Your task to perform on an android device: stop showing notifications on the lock screen Image 0: 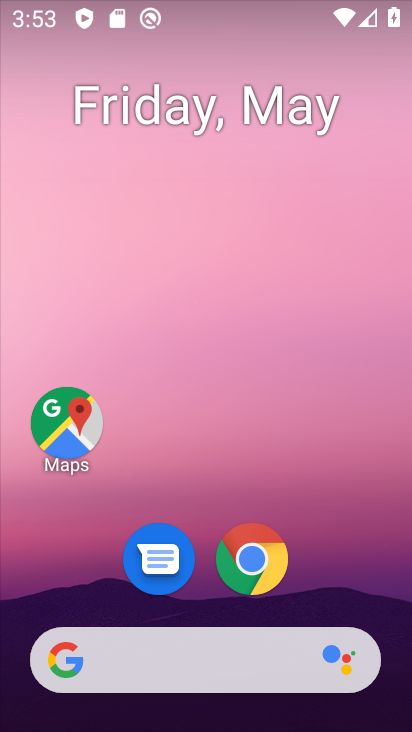
Step 0: drag from (323, 559) to (248, 112)
Your task to perform on an android device: stop showing notifications on the lock screen Image 1: 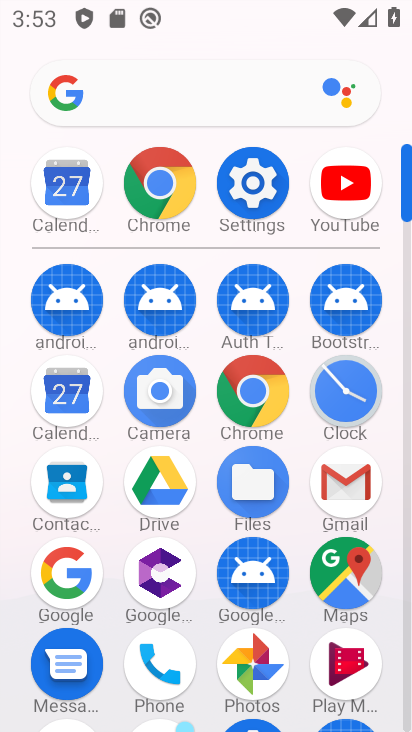
Step 1: click (246, 185)
Your task to perform on an android device: stop showing notifications on the lock screen Image 2: 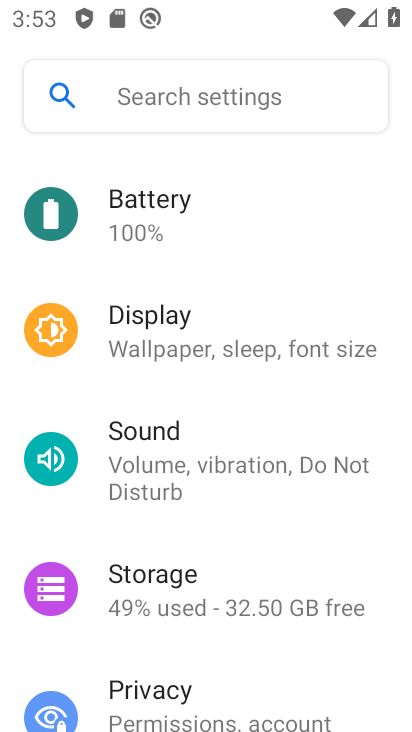
Step 2: drag from (267, 611) to (270, 248)
Your task to perform on an android device: stop showing notifications on the lock screen Image 3: 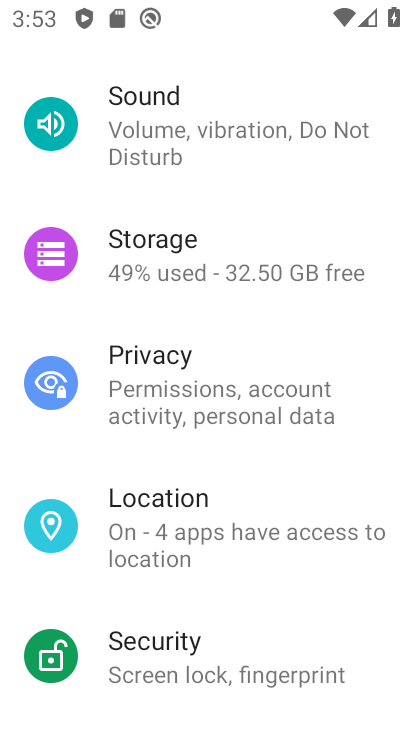
Step 3: drag from (293, 631) to (287, 301)
Your task to perform on an android device: stop showing notifications on the lock screen Image 4: 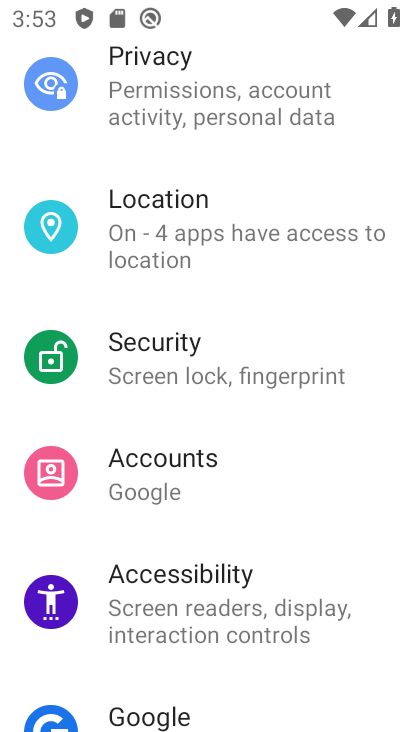
Step 4: drag from (266, 528) to (259, 238)
Your task to perform on an android device: stop showing notifications on the lock screen Image 5: 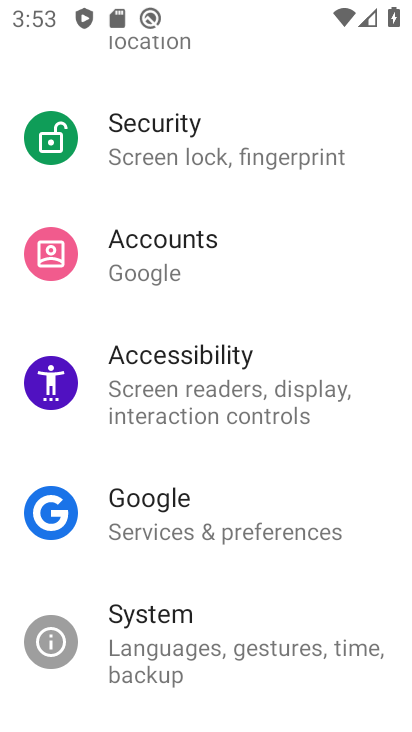
Step 5: drag from (256, 409) to (260, 248)
Your task to perform on an android device: stop showing notifications on the lock screen Image 6: 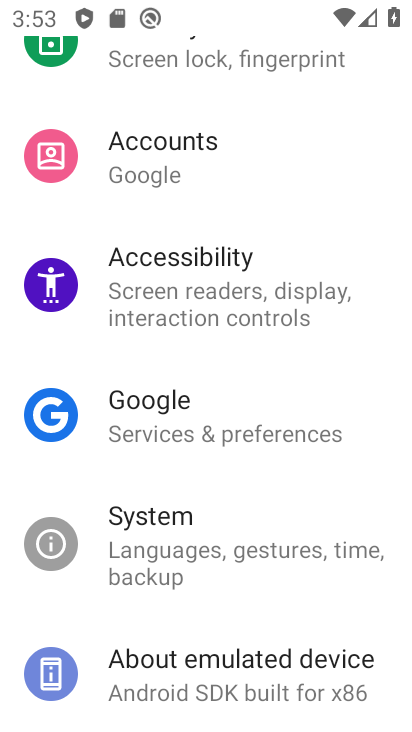
Step 6: drag from (286, 564) to (306, 257)
Your task to perform on an android device: stop showing notifications on the lock screen Image 7: 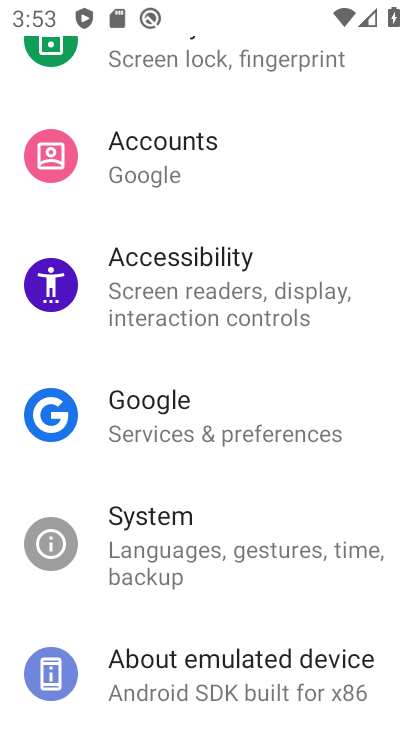
Step 7: drag from (191, 465) to (218, 228)
Your task to perform on an android device: stop showing notifications on the lock screen Image 8: 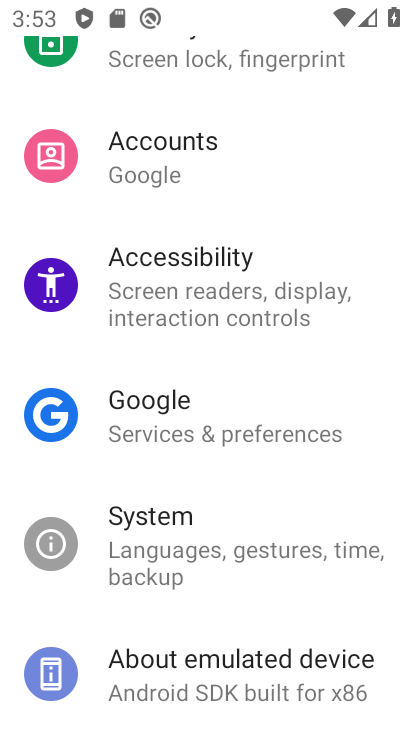
Step 8: drag from (226, 295) to (274, 638)
Your task to perform on an android device: stop showing notifications on the lock screen Image 9: 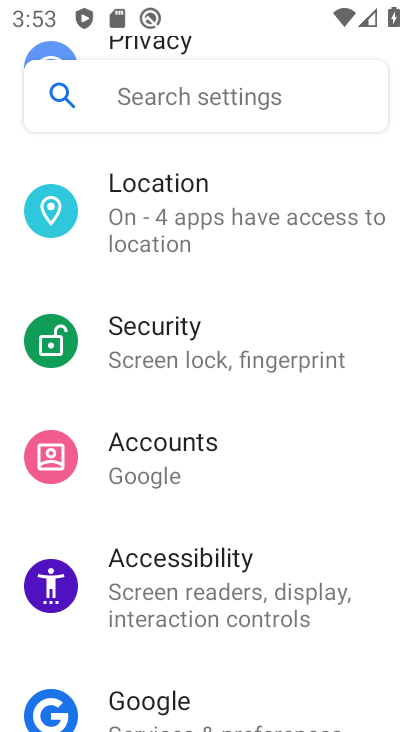
Step 9: drag from (238, 283) to (277, 633)
Your task to perform on an android device: stop showing notifications on the lock screen Image 10: 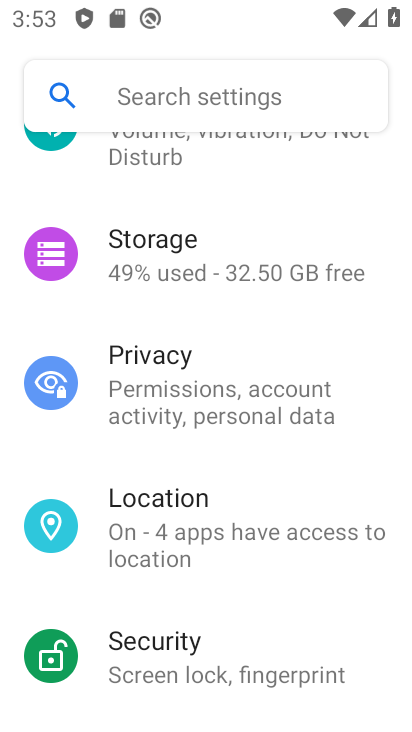
Step 10: drag from (284, 313) to (324, 597)
Your task to perform on an android device: stop showing notifications on the lock screen Image 11: 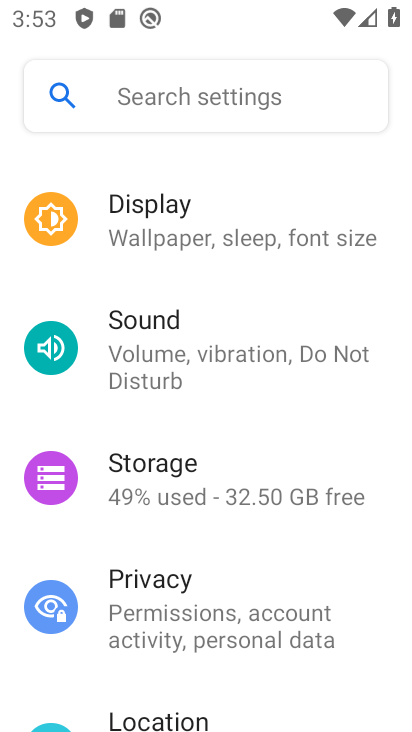
Step 11: drag from (269, 282) to (298, 578)
Your task to perform on an android device: stop showing notifications on the lock screen Image 12: 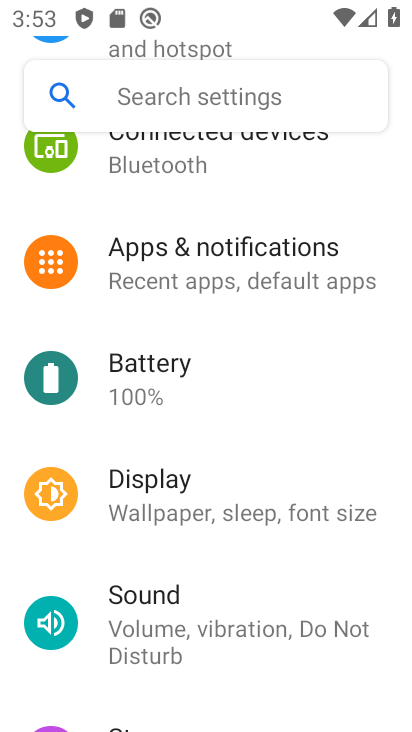
Step 12: click (262, 246)
Your task to perform on an android device: stop showing notifications on the lock screen Image 13: 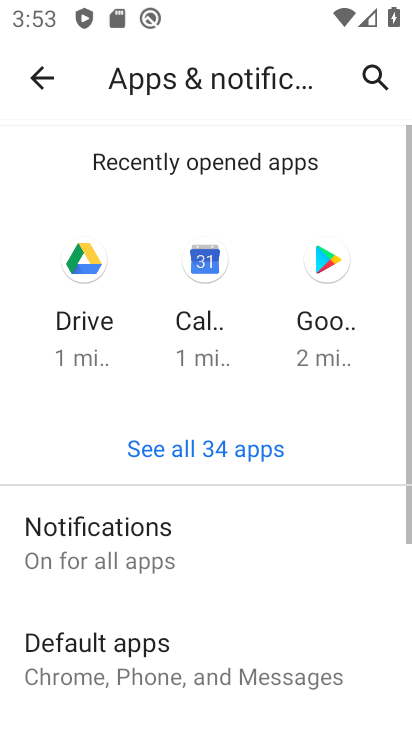
Step 13: drag from (214, 600) to (215, 328)
Your task to perform on an android device: stop showing notifications on the lock screen Image 14: 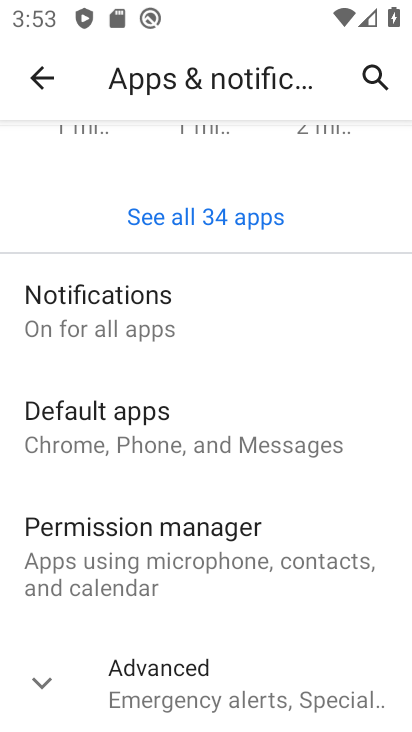
Step 14: click (140, 287)
Your task to perform on an android device: stop showing notifications on the lock screen Image 15: 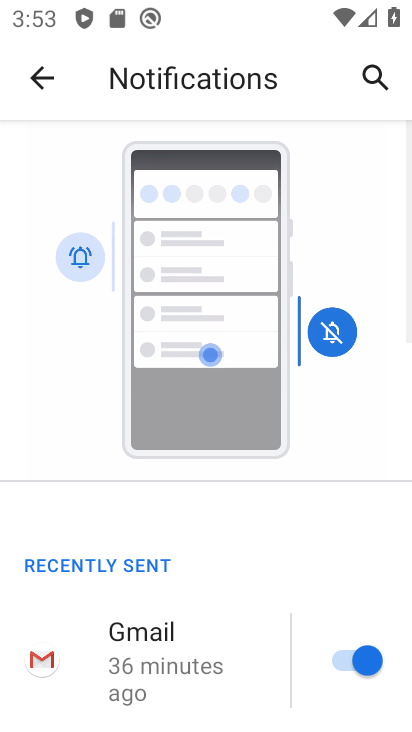
Step 15: drag from (152, 638) to (196, 149)
Your task to perform on an android device: stop showing notifications on the lock screen Image 16: 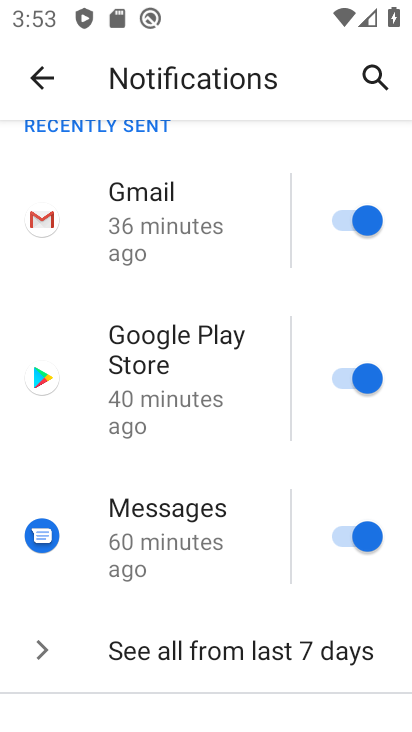
Step 16: drag from (160, 562) to (172, 136)
Your task to perform on an android device: stop showing notifications on the lock screen Image 17: 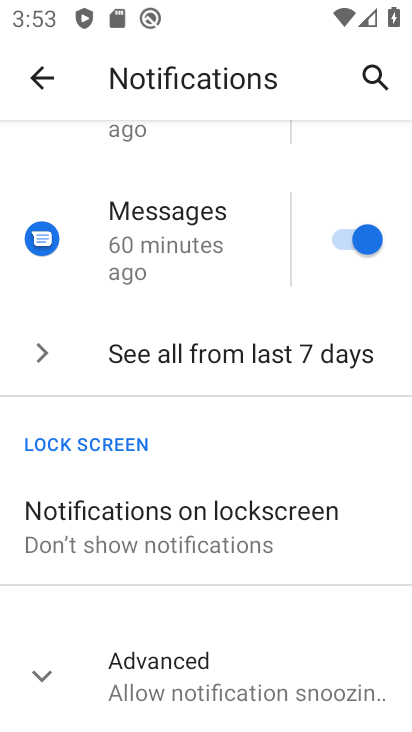
Step 17: click (117, 505)
Your task to perform on an android device: stop showing notifications on the lock screen Image 18: 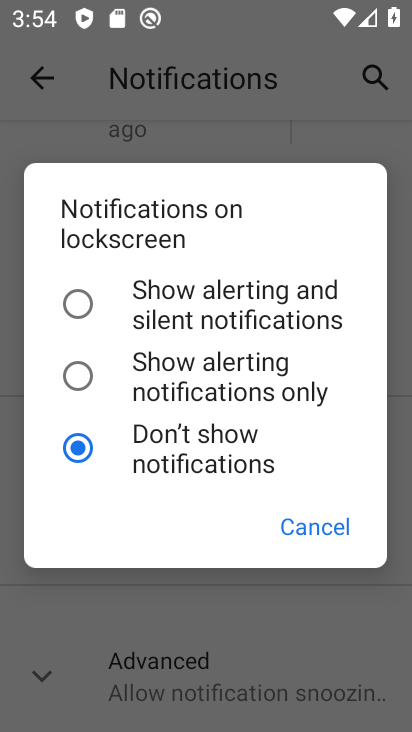
Step 18: click (74, 436)
Your task to perform on an android device: stop showing notifications on the lock screen Image 19: 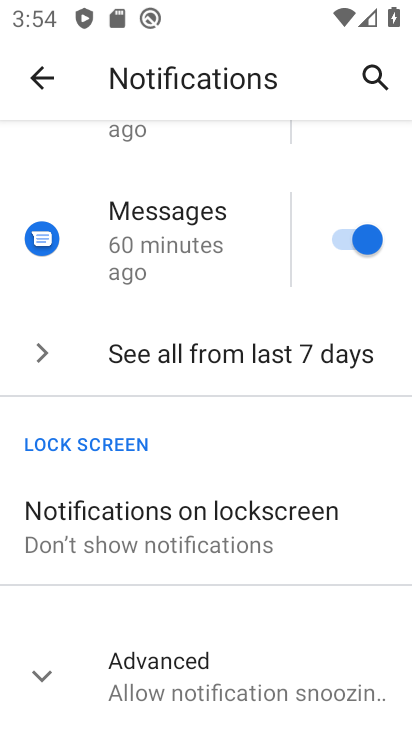
Step 19: task complete